Your task to perform on an android device: delete browsing data in the chrome app Image 0: 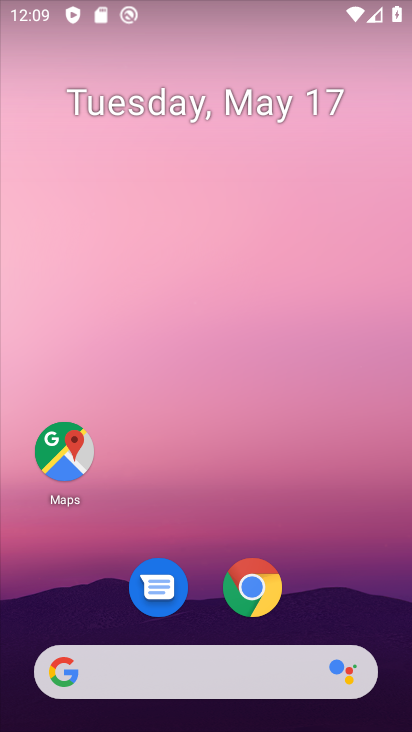
Step 0: drag from (221, 558) to (258, 36)
Your task to perform on an android device: delete browsing data in the chrome app Image 1: 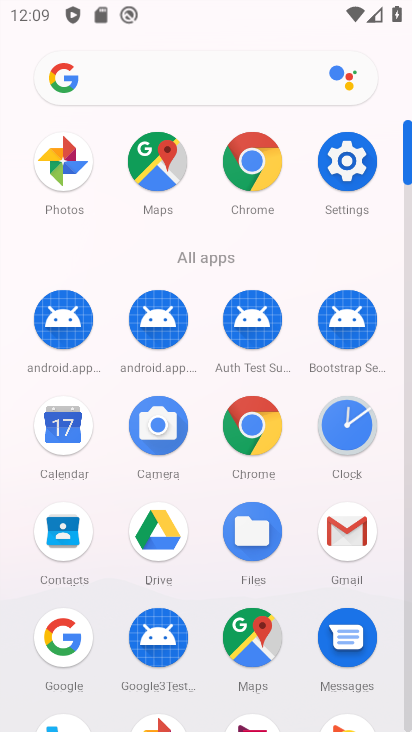
Step 1: click (262, 195)
Your task to perform on an android device: delete browsing data in the chrome app Image 2: 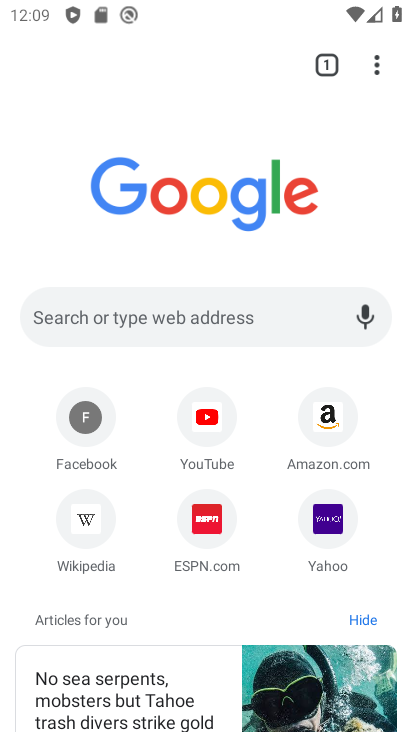
Step 2: click (377, 73)
Your task to perform on an android device: delete browsing data in the chrome app Image 3: 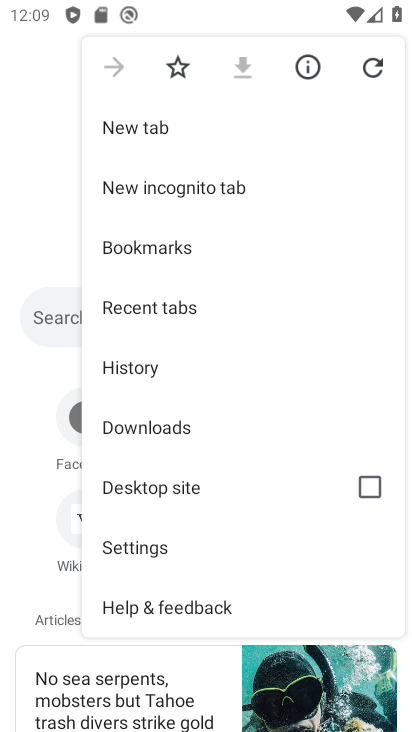
Step 3: click (150, 361)
Your task to perform on an android device: delete browsing data in the chrome app Image 4: 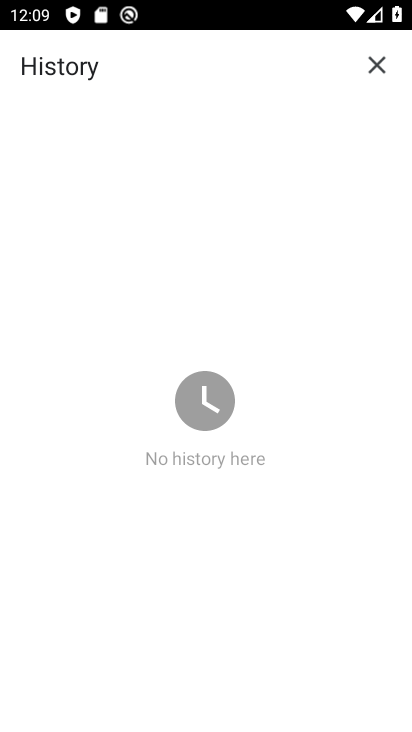
Step 4: task complete